Your task to perform on an android device: Open wifi settings Image 0: 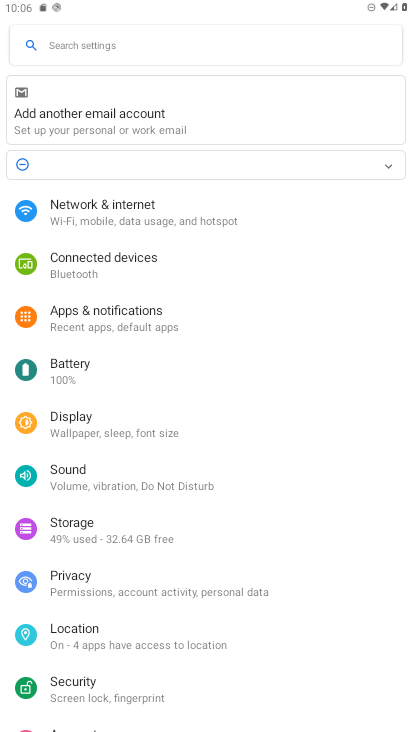
Step 0: click (101, 212)
Your task to perform on an android device: Open wifi settings Image 1: 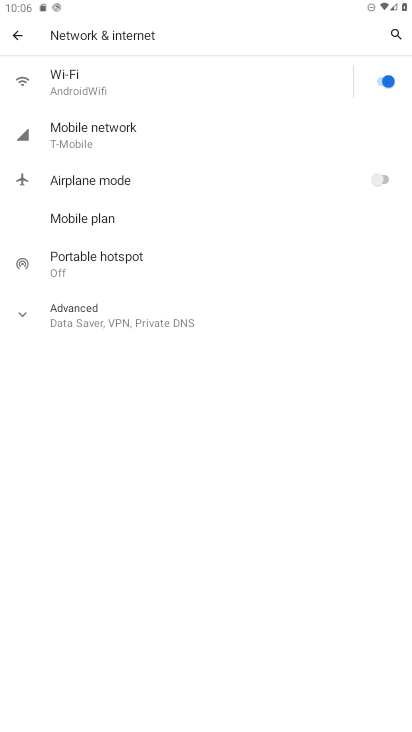
Step 1: click (93, 82)
Your task to perform on an android device: Open wifi settings Image 2: 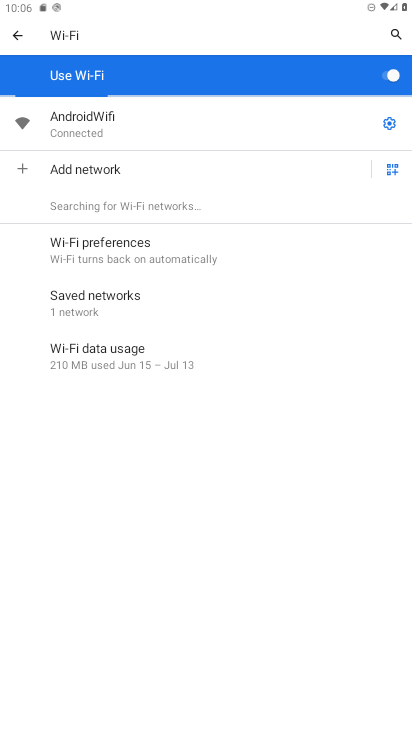
Step 2: task complete